Your task to perform on an android device: read, delete, or share a saved page in the chrome app Image 0: 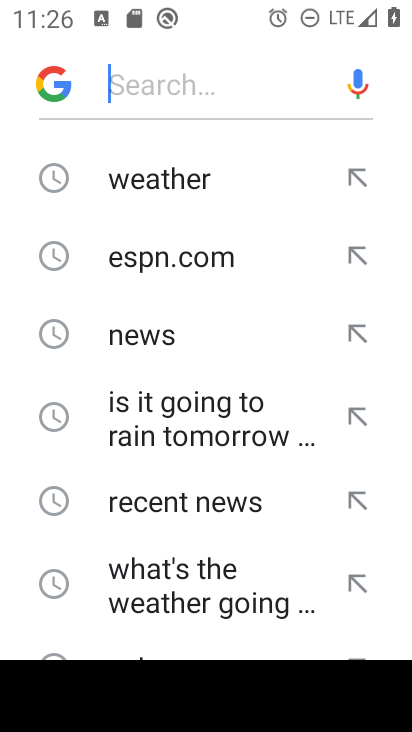
Step 0: press home button
Your task to perform on an android device: read, delete, or share a saved page in the chrome app Image 1: 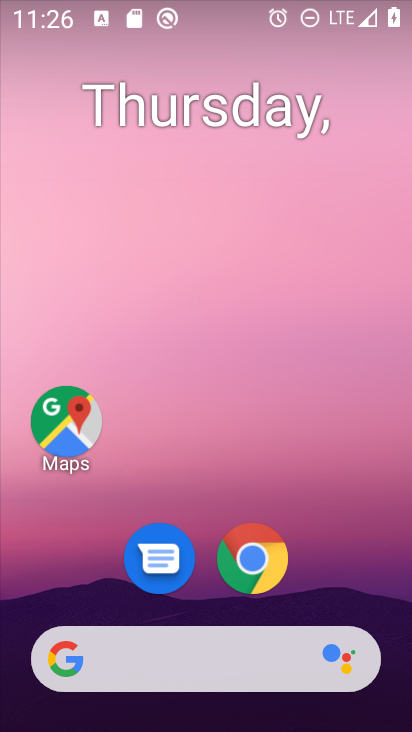
Step 1: click (251, 564)
Your task to perform on an android device: read, delete, or share a saved page in the chrome app Image 2: 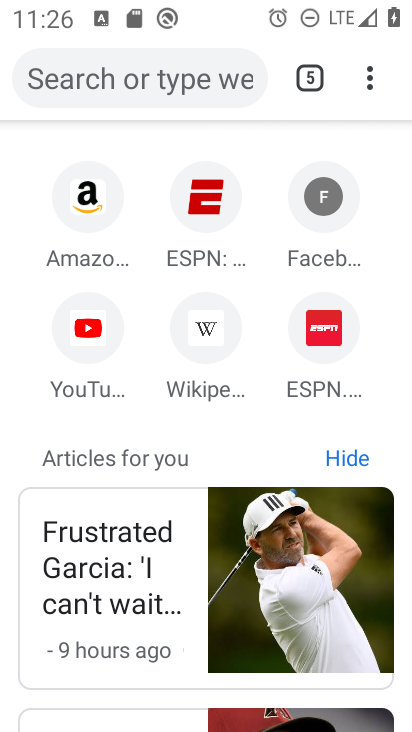
Step 2: click (366, 76)
Your task to perform on an android device: read, delete, or share a saved page in the chrome app Image 3: 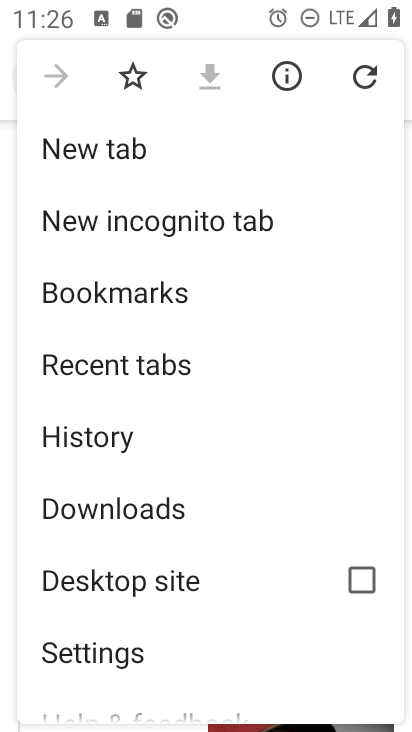
Step 3: click (102, 511)
Your task to perform on an android device: read, delete, or share a saved page in the chrome app Image 4: 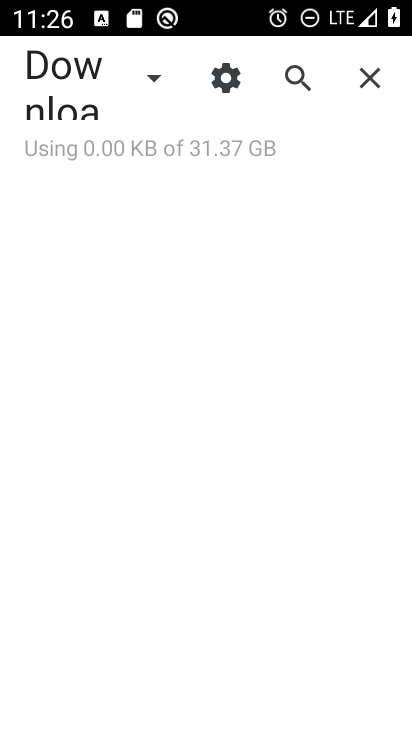
Step 4: click (152, 76)
Your task to perform on an android device: read, delete, or share a saved page in the chrome app Image 5: 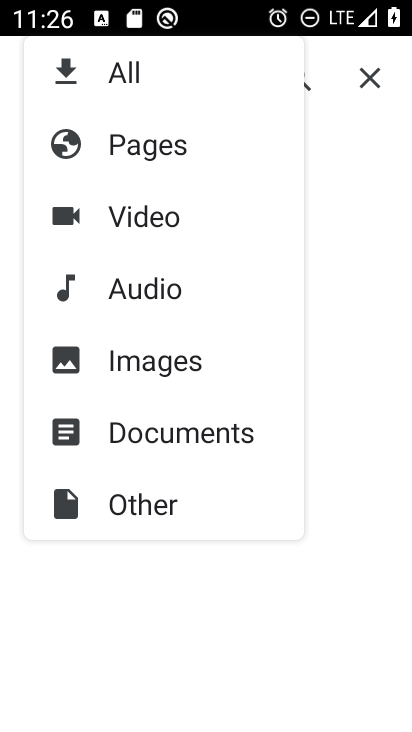
Step 5: click (137, 146)
Your task to perform on an android device: read, delete, or share a saved page in the chrome app Image 6: 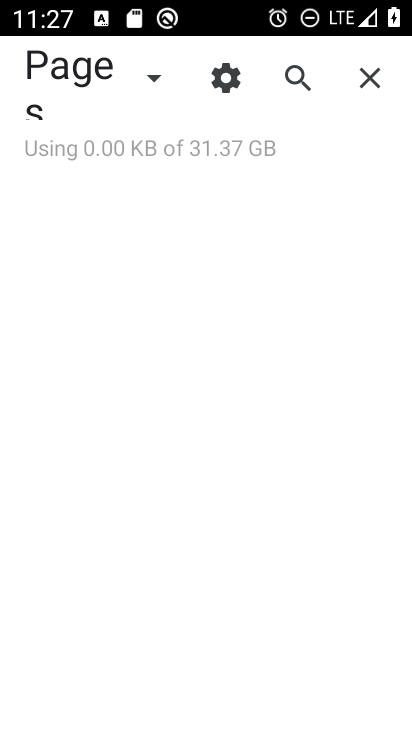
Step 6: task complete